Your task to perform on an android device: Search for vegetarian restaurants on Maps Image 0: 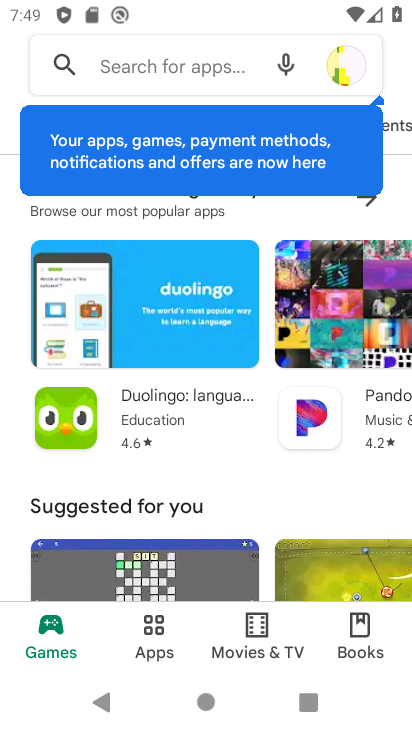
Step 0: press home button
Your task to perform on an android device: Search for vegetarian restaurants on Maps Image 1: 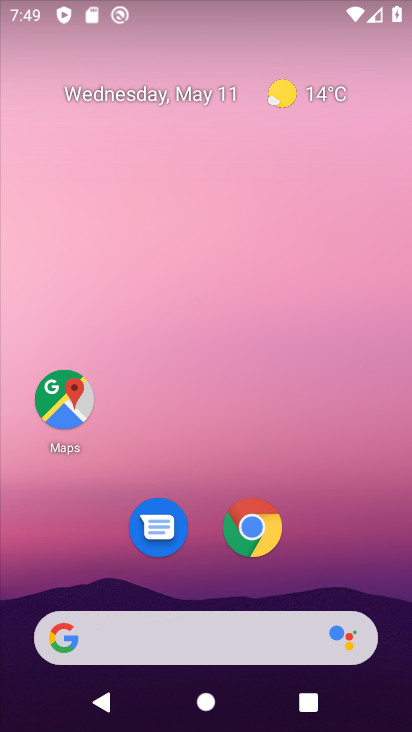
Step 1: drag from (225, 630) to (217, 240)
Your task to perform on an android device: Search for vegetarian restaurants on Maps Image 2: 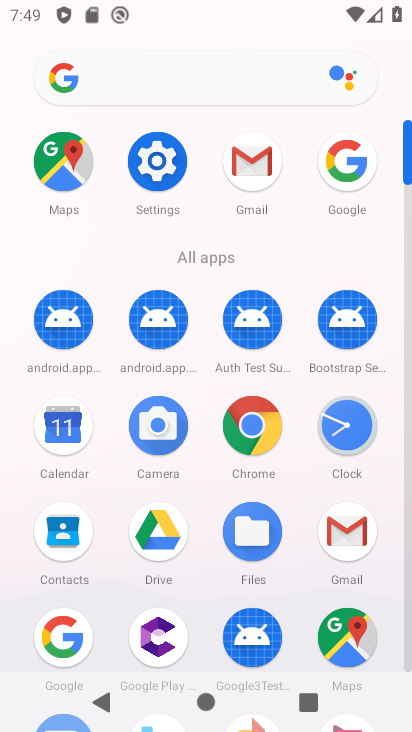
Step 2: click (69, 184)
Your task to perform on an android device: Search for vegetarian restaurants on Maps Image 3: 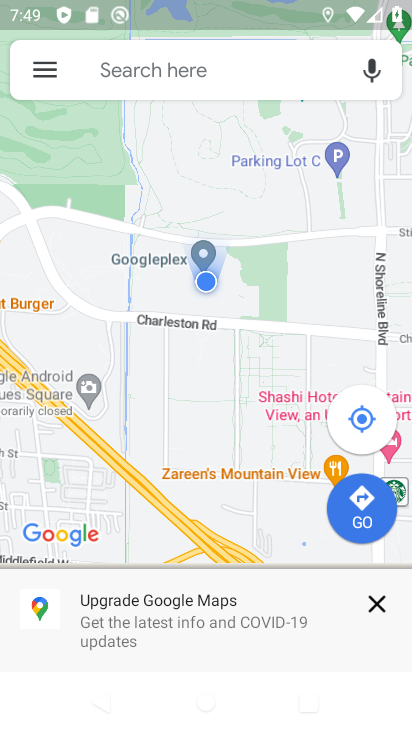
Step 3: press home button
Your task to perform on an android device: Search for vegetarian restaurants on Maps Image 4: 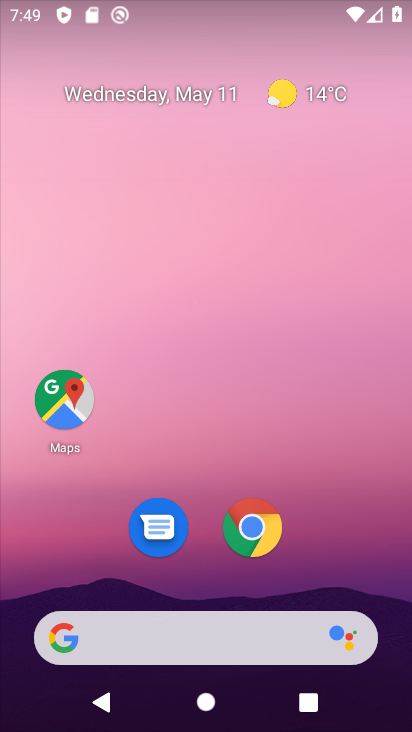
Step 4: click (55, 409)
Your task to perform on an android device: Search for vegetarian restaurants on Maps Image 5: 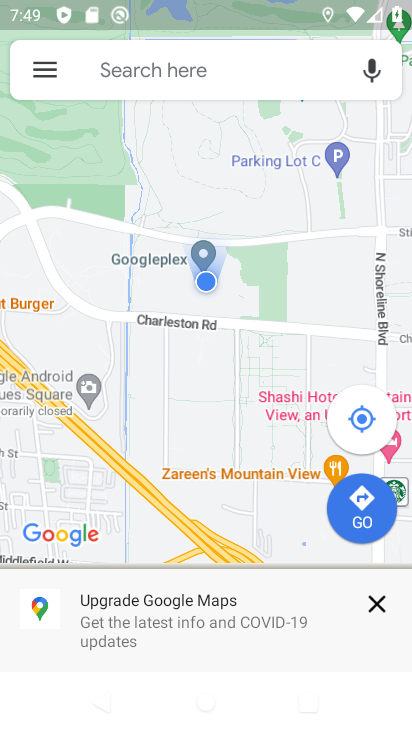
Step 5: click (149, 64)
Your task to perform on an android device: Search for vegetarian restaurants on Maps Image 6: 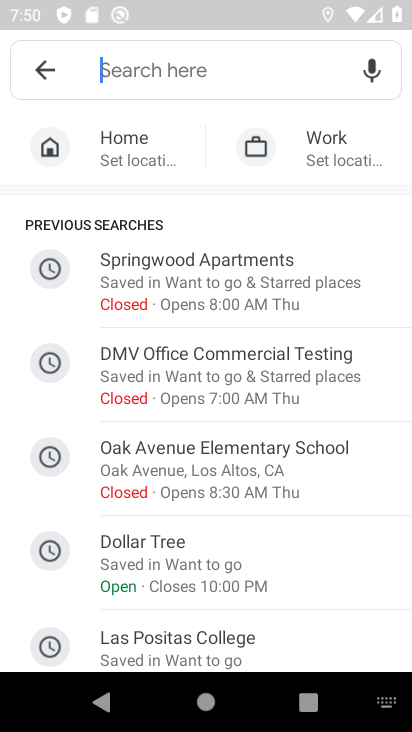
Step 6: type "vegetarian restaurants"
Your task to perform on an android device: Search for vegetarian restaurants on Maps Image 7: 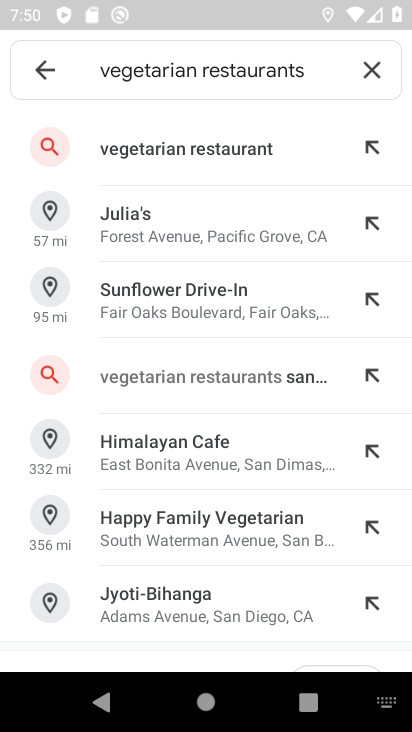
Step 7: click (261, 143)
Your task to perform on an android device: Search for vegetarian restaurants on Maps Image 8: 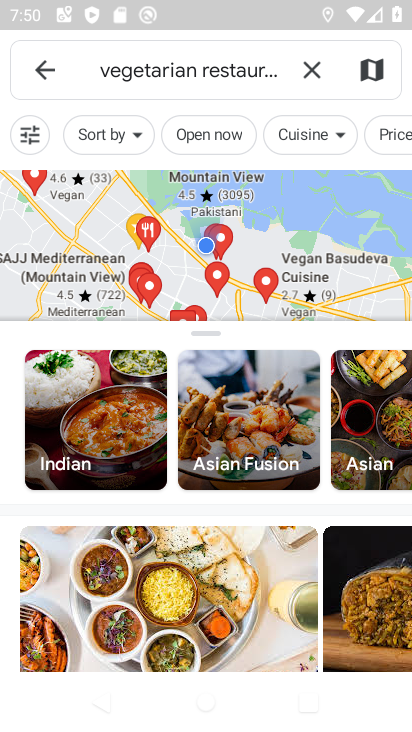
Step 8: task complete